Your task to perform on an android device: delete browsing data in the chrome app Image 0: 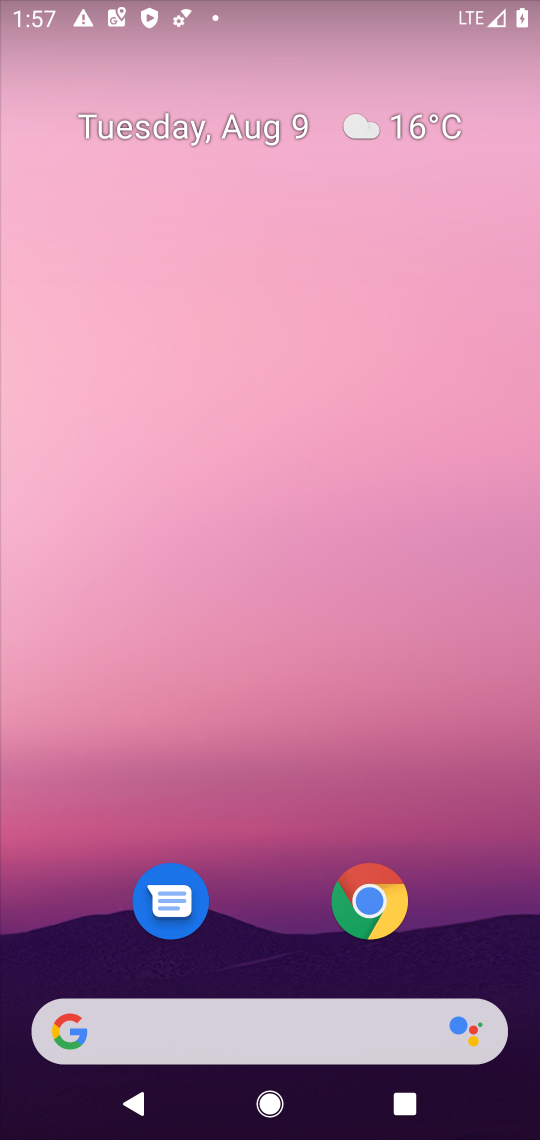
Step 0: click (373, 903)
Your task to perform on an android device: delete browsing data in the chrome app Image 1: 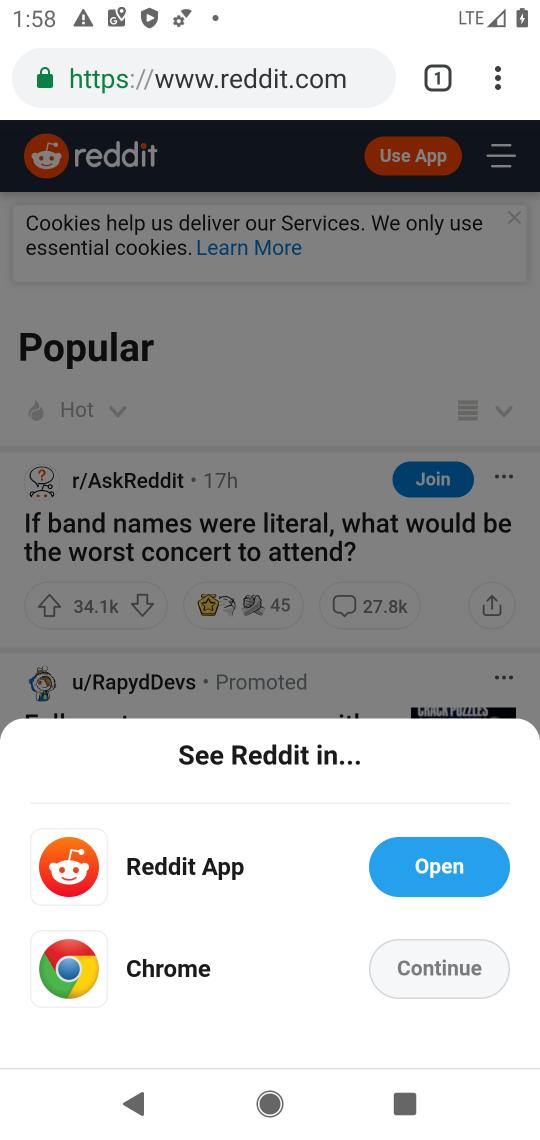
Step 1: click (497, 86)
Your task to perform on an android device: delete browsing data in the chrome app Image 2: 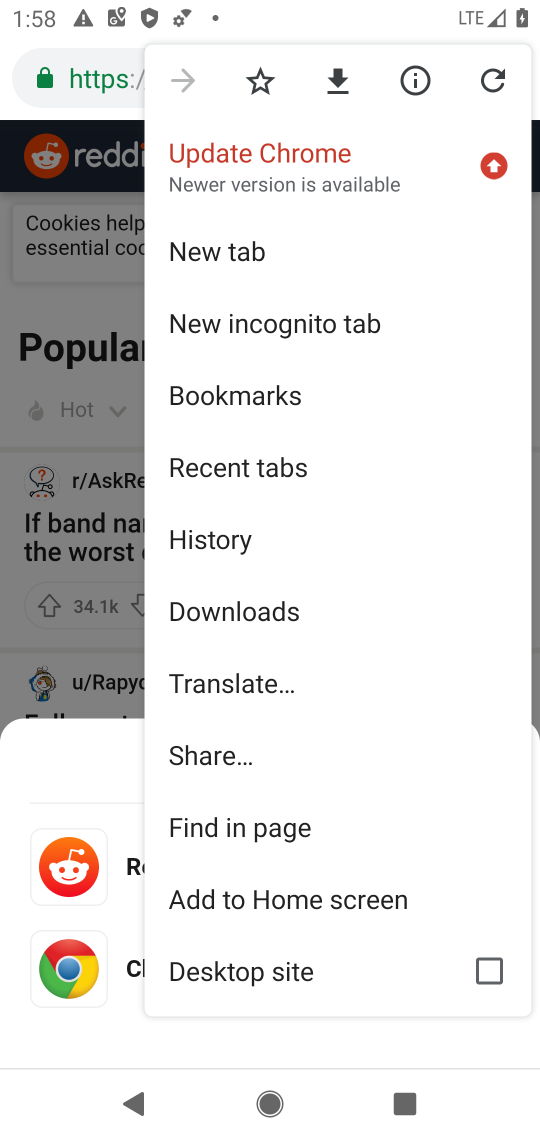
Step 2: click (217, 531)
Your task to perform on an android device: delete browsing data in the chrome app Image 3: 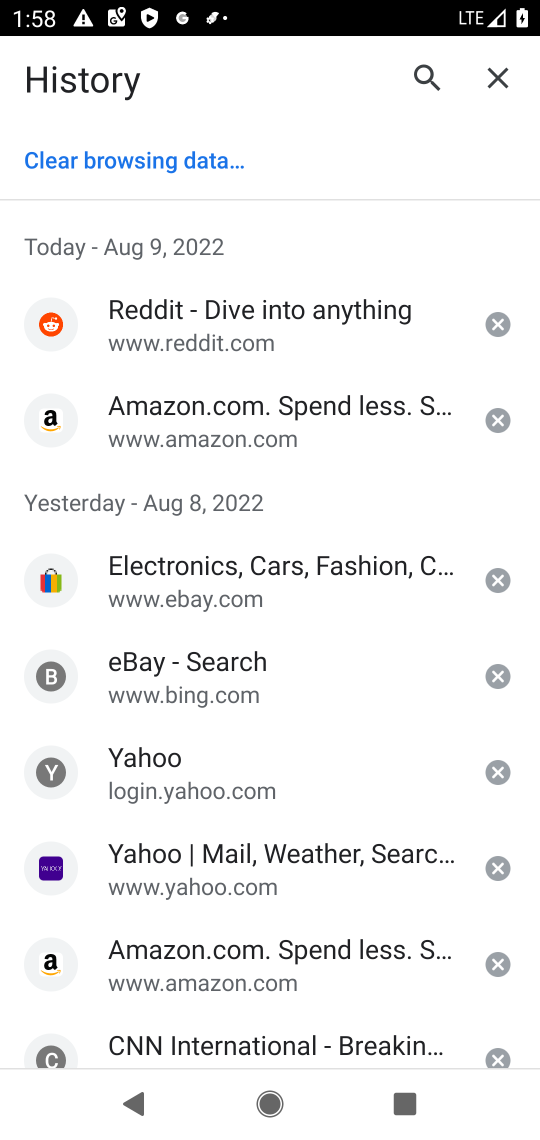
Step 3: click (151, 158)
Your task to perform on an android device: delete browsing data in the chrome app Image 4: 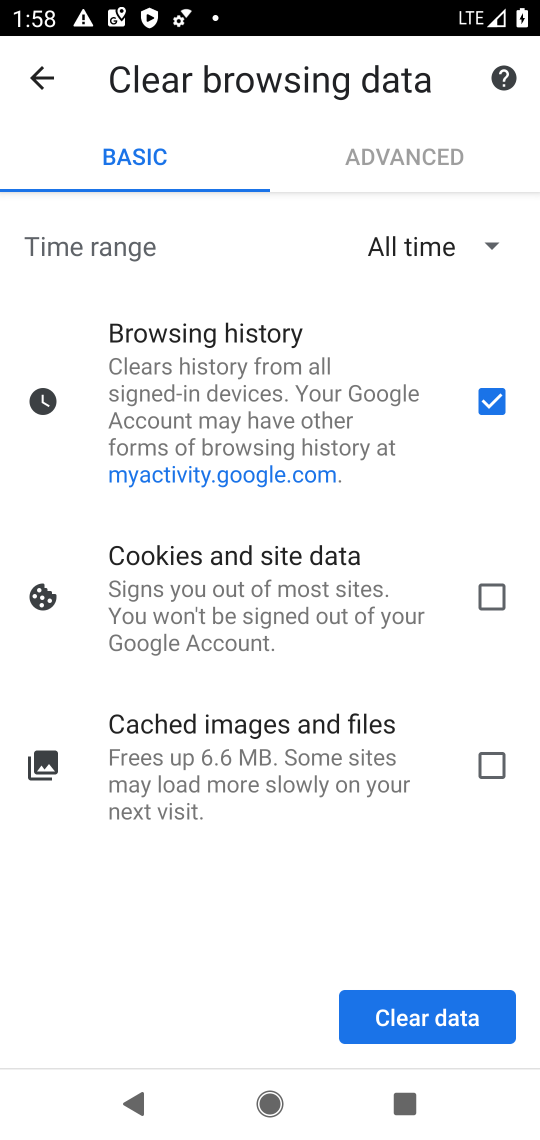
Step 4: click (425, 1007)
Your task to perform on an android device: delete browsing data in the chrome app Image 5: 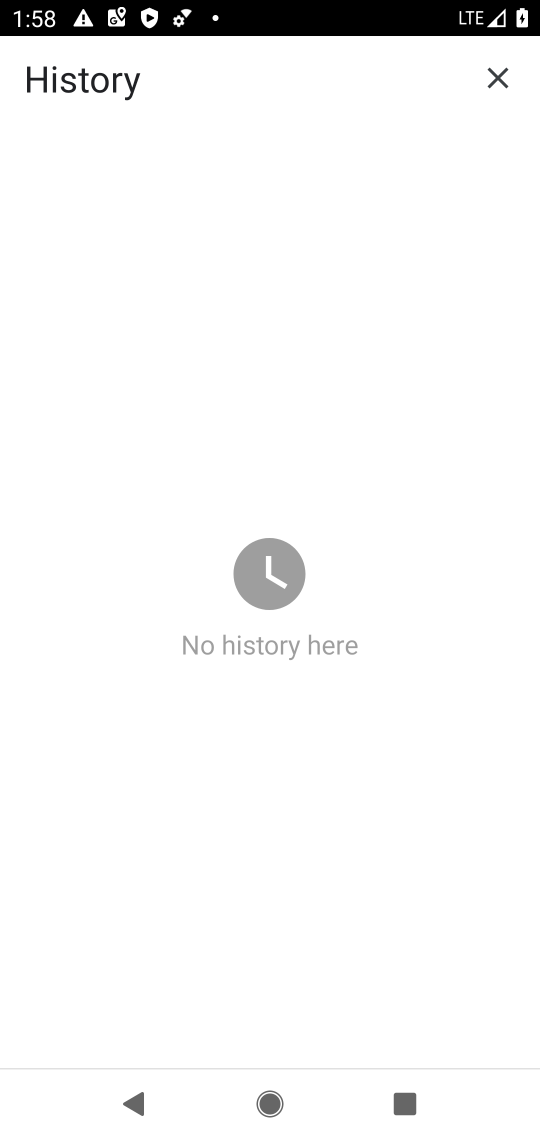
Step 5: task complete